Your task to perform on an android device: turn off picture-in-picture Image 0: 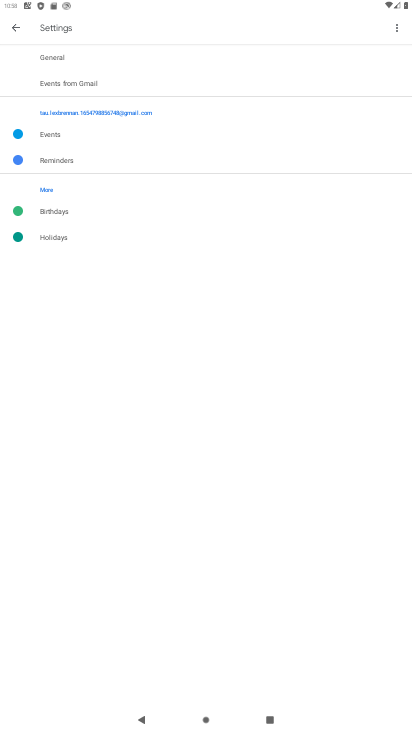
Step 0: task complete